Your task to perform on an android device: turn off smart reply in the gmail app Image 0: 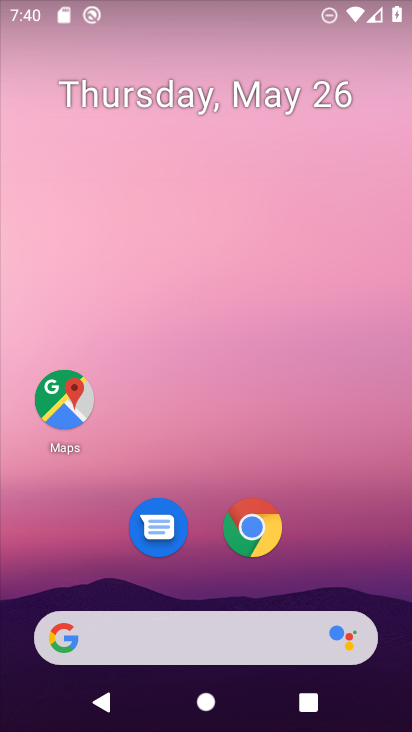
Step 0: press home button
Your task to perform on an android device: turn off smart reply in the gmail app Image 1: 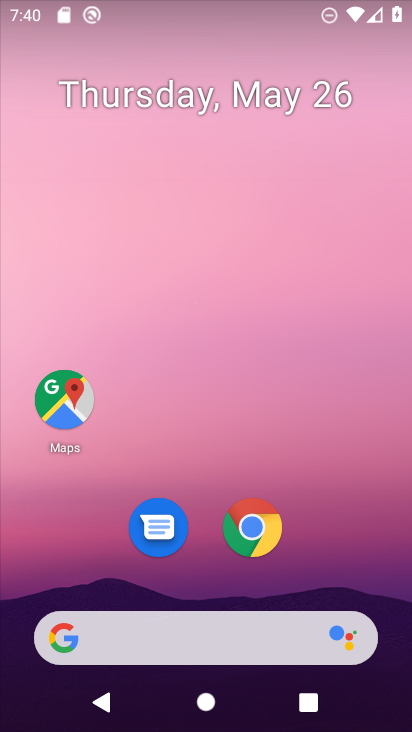
Step 1: drag from (66, 484) to (236, 148)
Your task to perform on an android device: turn off smart reply in the gmail app Image 2: 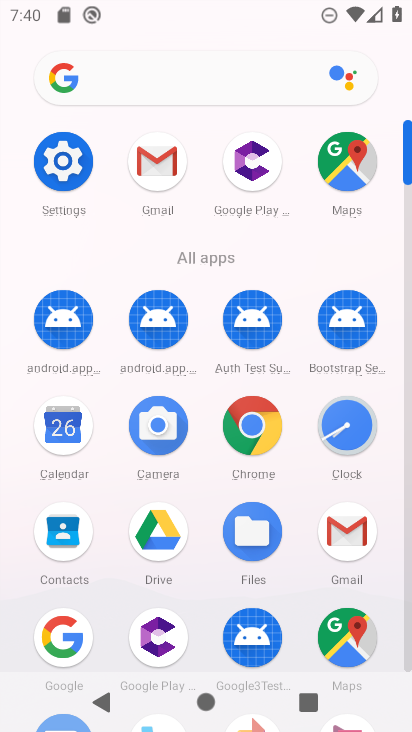
Step 2: click (158, 172)
Your task to perform on an android device: turn off smart reply in the gmail app Image 3: 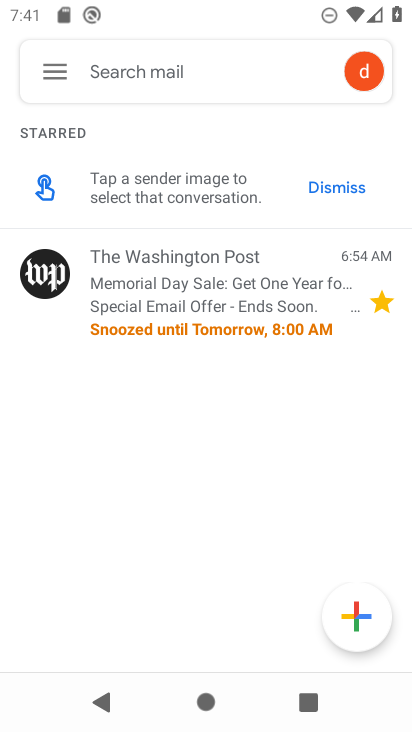
Step 3: click (73, 62)
Your task to perform on an android device: turn off smart reply in the gmail app Image 4: 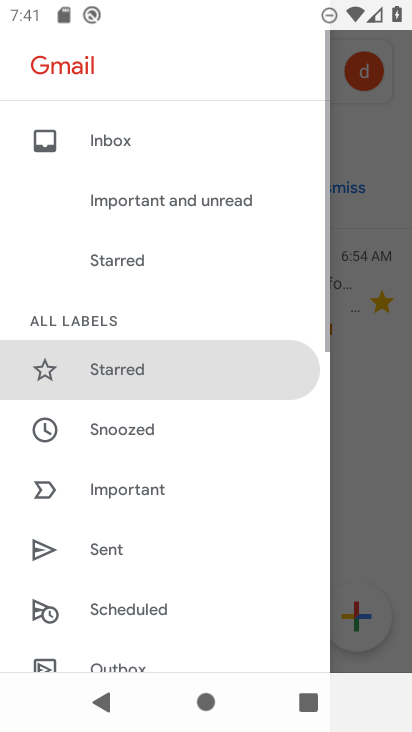
Step 4: drag from (45, 683) to (263, 158)
Your task to perform on an android device: turn off smart reply in the gmail app Image 5: 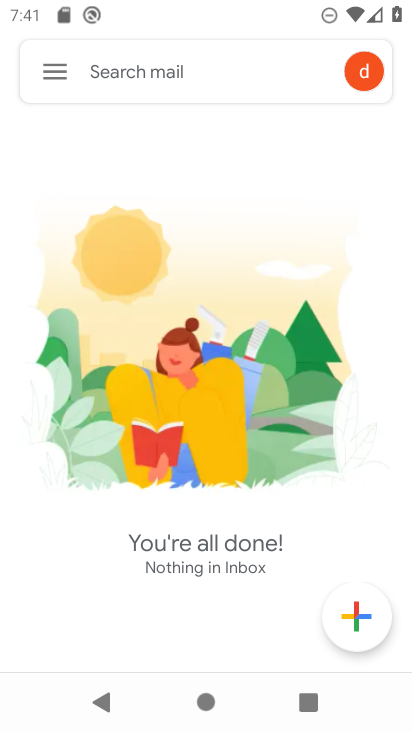
Step 5: click (45, 66)
Your task to perform on an android device: turn off smart reply in the gmail app Image 6: 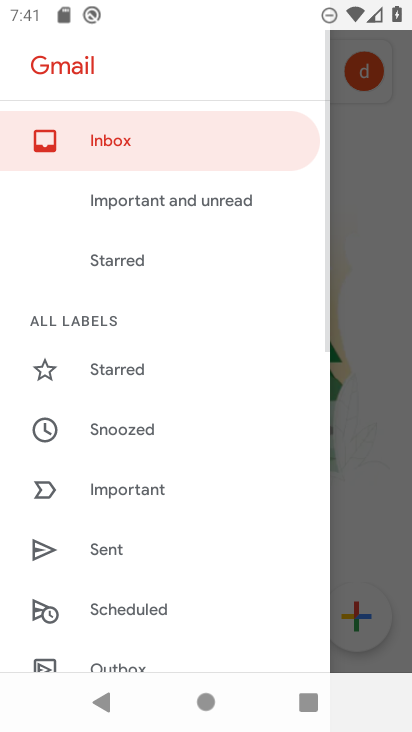
Step 6: drag from (13, 488) to (218, 222)
Your task to perform on an android device: turn off smart reply in the gmail app Image 7: 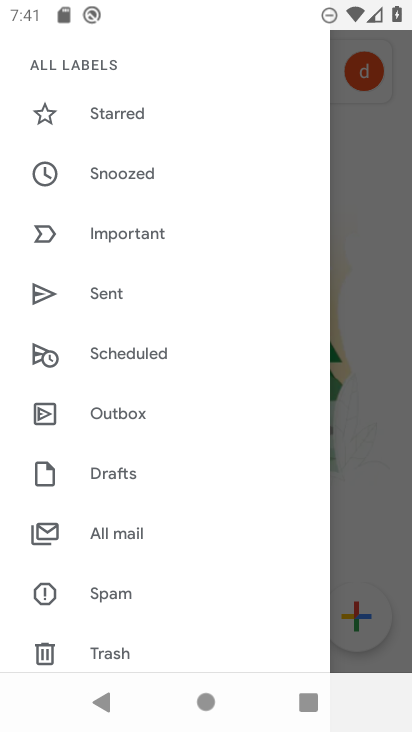
Step 7: drag from (65, 483) to (231, 182)
Your task to perform on an android device: turn off smart reply in the gmail app Image 8: 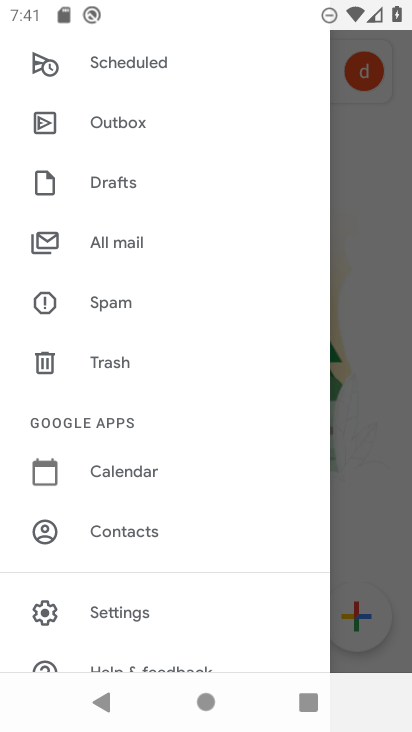
Step 8: click (120, 612)
Your task to perform on an android device: turn off smart reply in the gmail app Image 9: 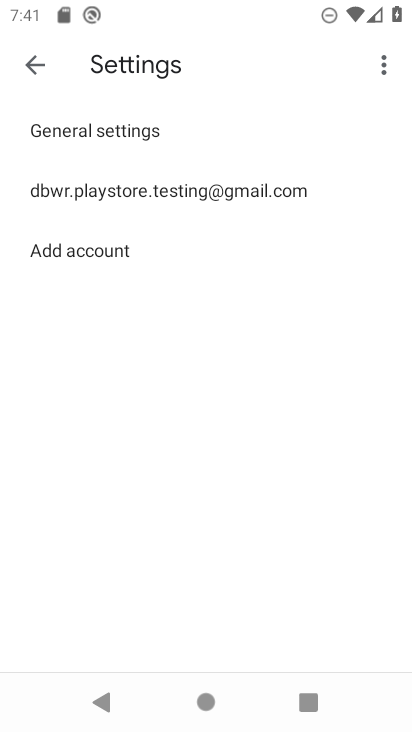
Step 9: click (151, 191)
Your task to perform on an android device: turn off smart reply in the gmail app Image 10: 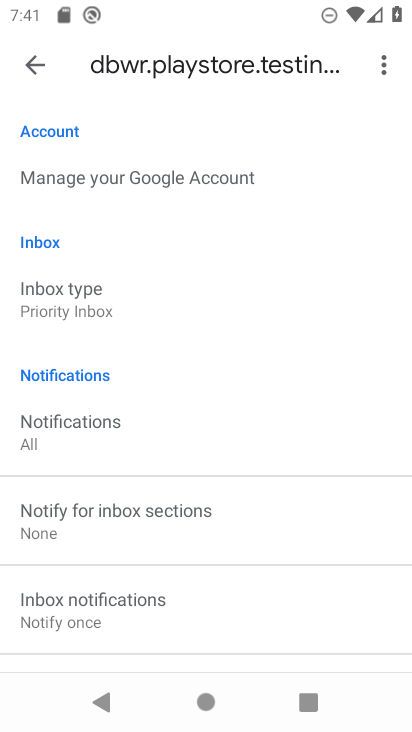
Step 10: drag from (24, 515) to (256, 94)
Your task to perform on an android device: turn off smart reply in the gmail app Image 11: 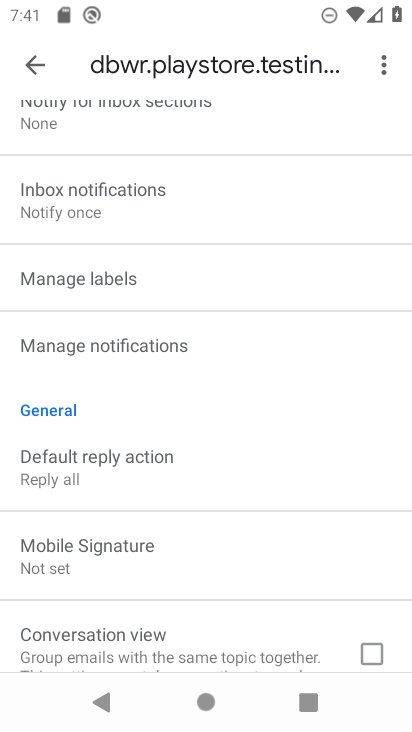
Step 11: drag from (25, 563) to (246, 221)
Your task to perform on an android device: turn off smart reply in the gmail app Image 12: 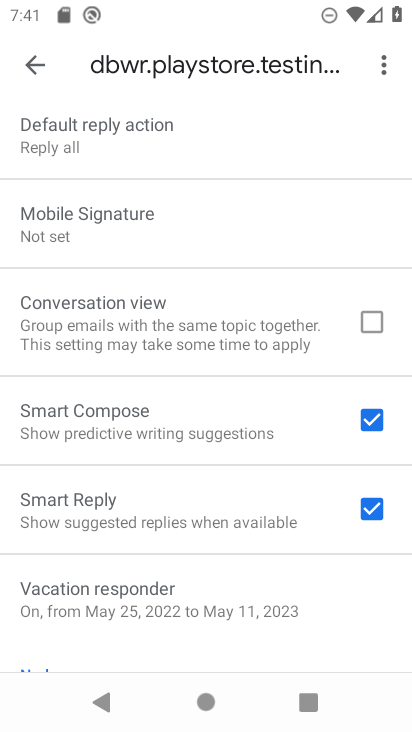
Step 12: click (378, 504)
Your task to perform on an android device: turn off smart reply in the gmail app Image 13: 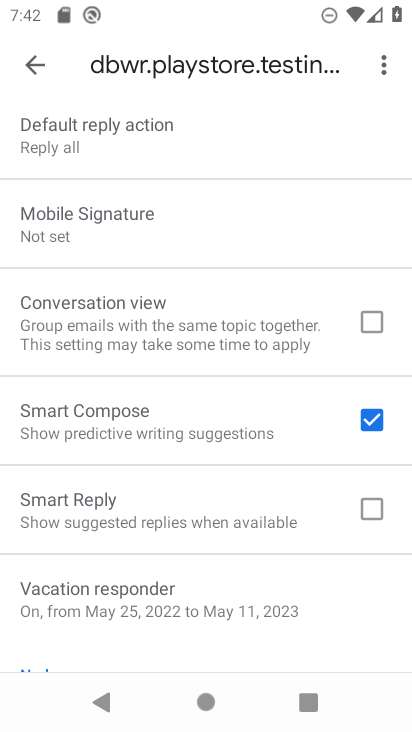
Step 13: task complete